Your task to perform on an android device: Is it going to rain this weekend? Image 0: 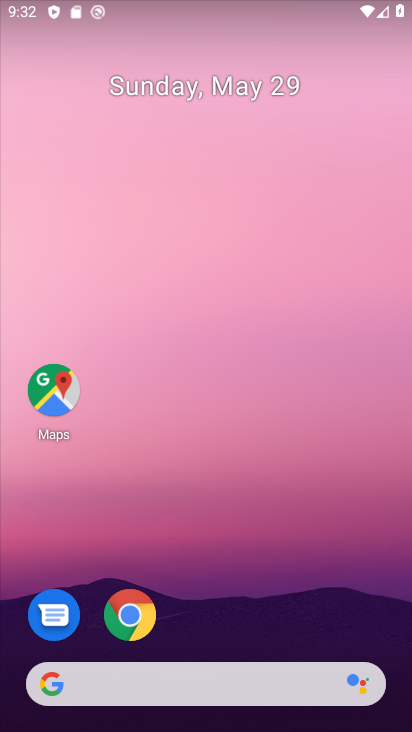
Step 0: drag from (195, 622) to (31, 43)
Your task to perform on an android device: Is it going to rain this weekend? Image 1: 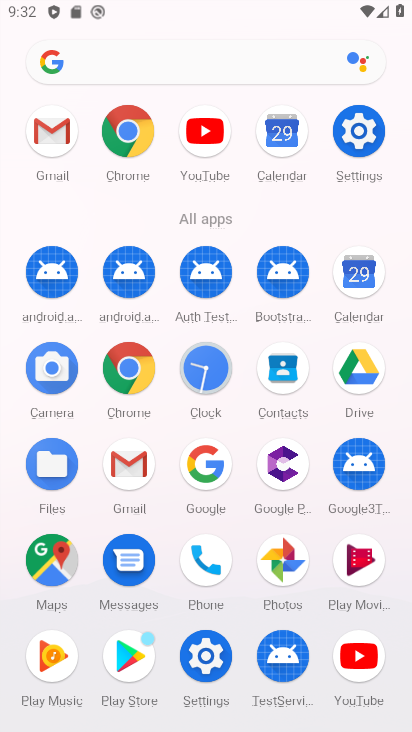
Step 1: click (196, 464)
Your task to perform on an android device: Is it going to rain this weekend? Image 2: 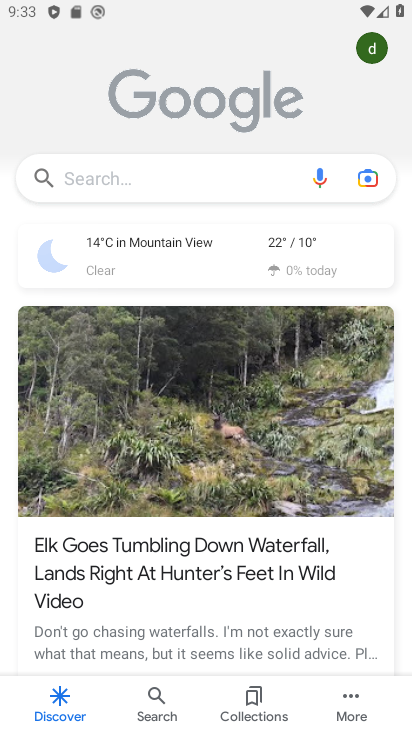
Step 2: click (205, 165)
Your task to perform on an android device: Is it going to rain this weekend? Image 3: 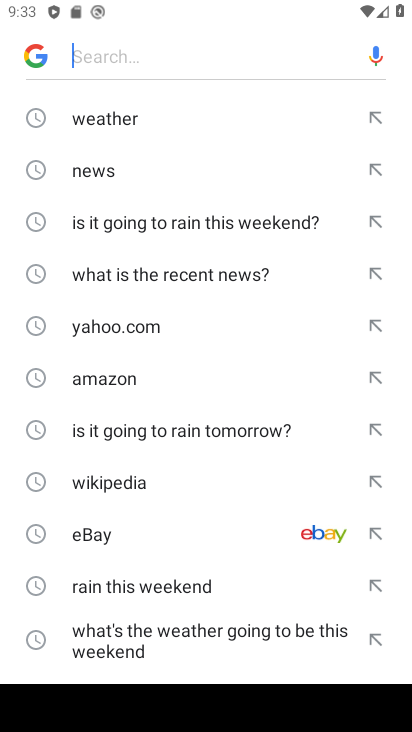
Step 3: click (106, 116)
Your task to perform on an android device: Is it going to rain this weekend? Image 4: 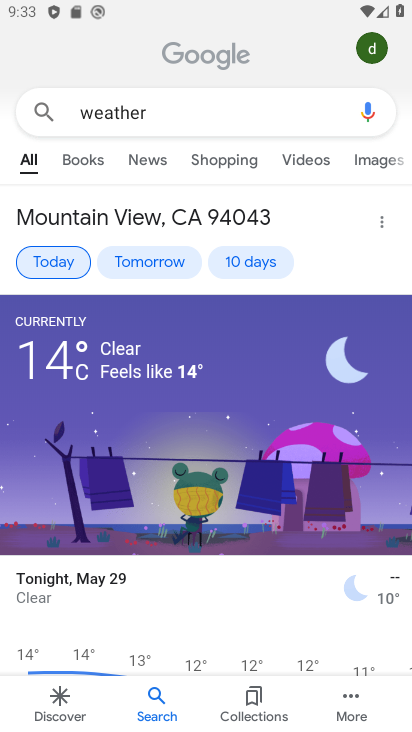
Step 4: click (235, 251)
Your task to perform on an android device: Is it going to rain this weekend? Image 5: 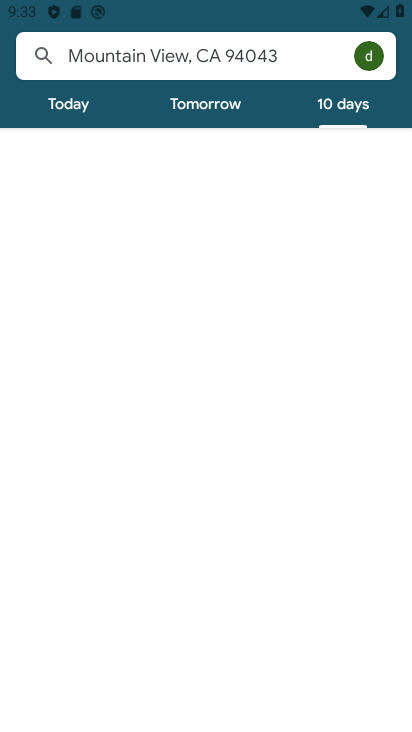
Step 5: task complete